Your task to perform on an android device: turn on priority inbox in the gmail app Image 0: 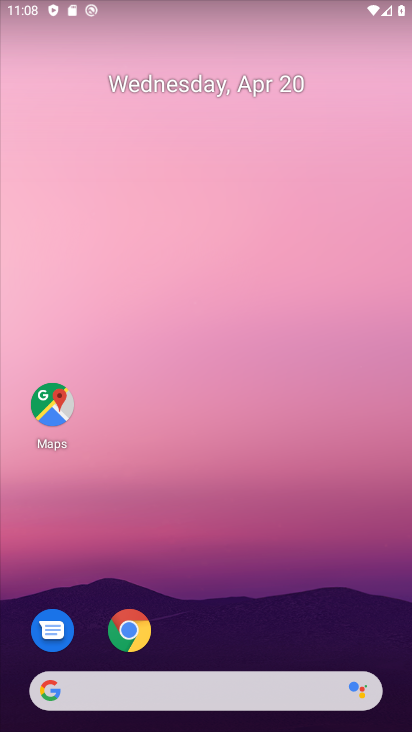
Step 0: drag from (201, 517) to (293, 106)
Your task to perform on an android device: turn on priority inbox in the gmail app Image 1: 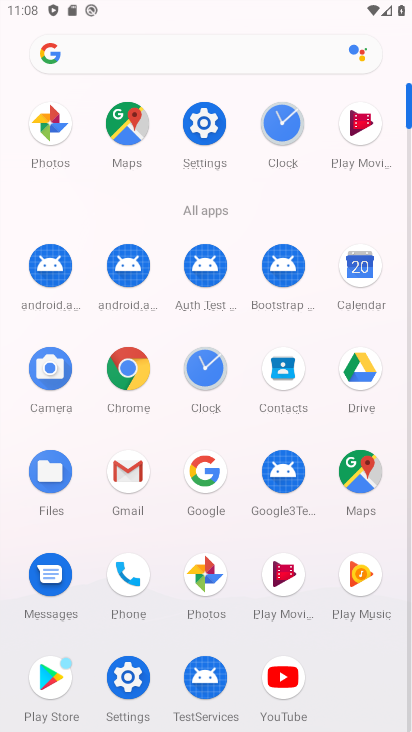
Step 1: click (117, 496)
Your task to perform on an android device: turn on priority inbox in the gmail app Image 2: 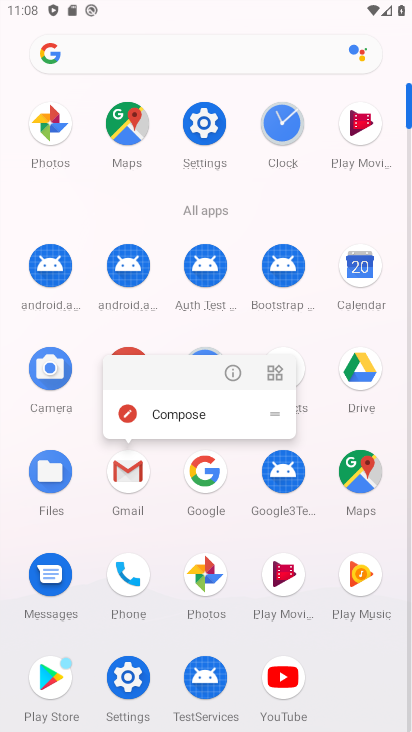
Step 2: click (135, 475)
Your task to perform on an android device: turn on priority inbox in the gmail app Image 3: 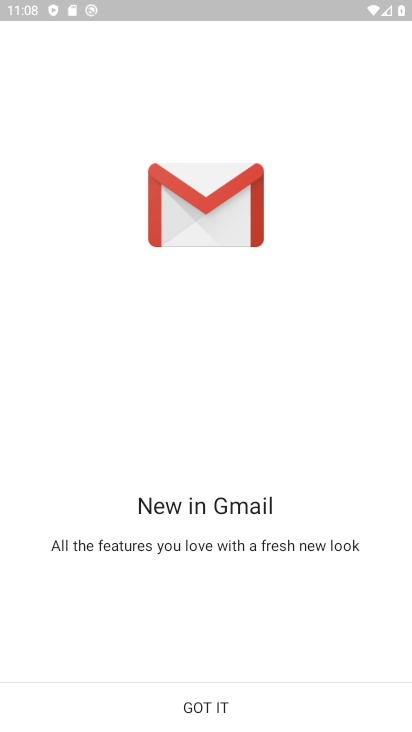
Step 3: click (224, 698)
Your task to perform on an android device: turn on priority inbox in the gmail app Image 4: 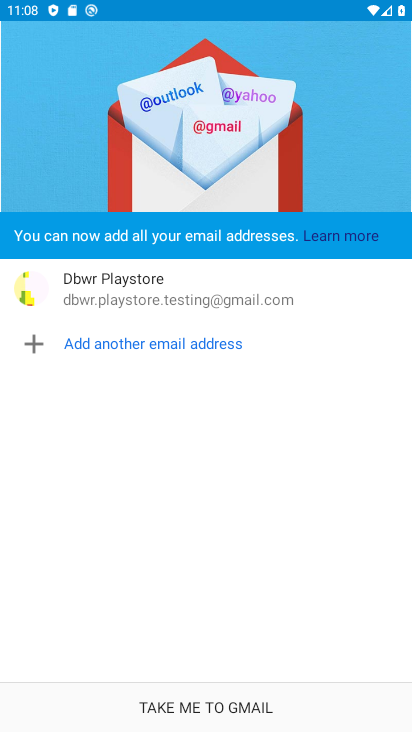
Step 4: click (206, 710)
Your task to perform on an android device: turn on priority inbox in the gmail app Image 5: 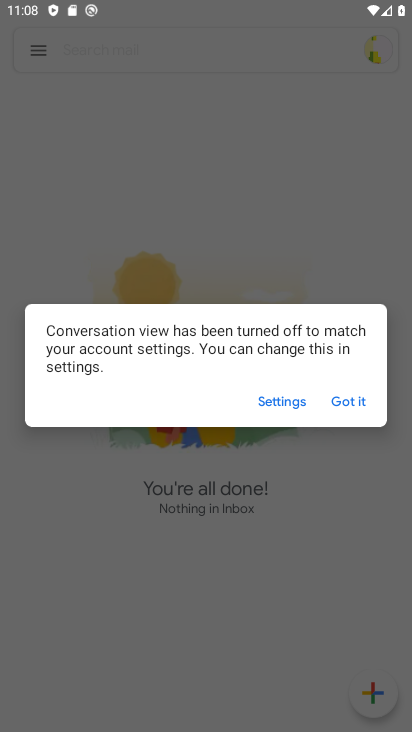
Step 5: click (345, 401)
Your task to perform on an android device: turn on priority inbox in the gmail app Image 6: 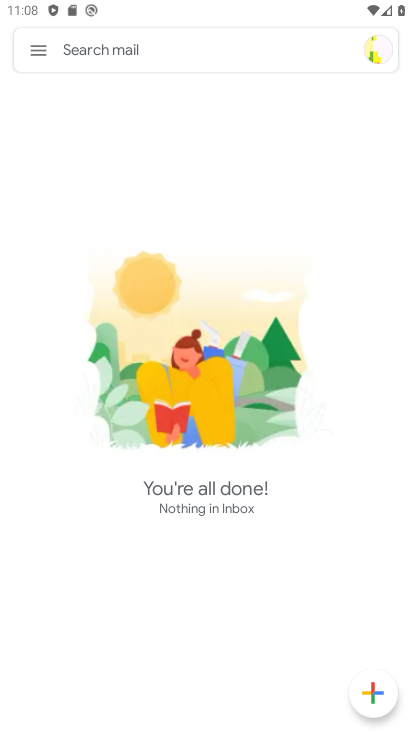
Step 6: click (44, 48)
Your task to perform on an android device: turn on priority inbox in the gmail app Image 7: 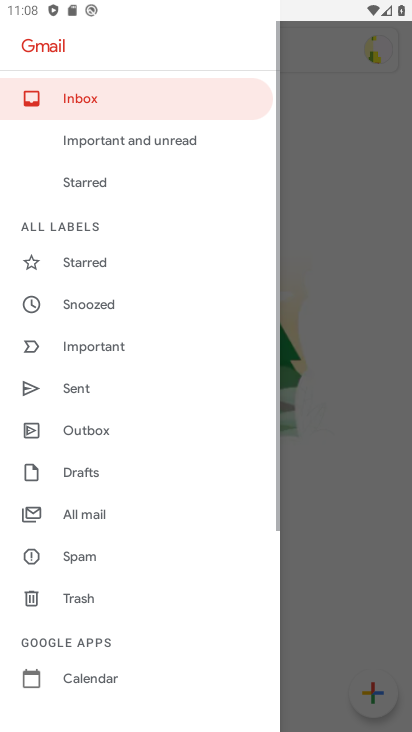
Step 7: drag from (96, 516) to (196, 151)
Your task to perform on an android device: turn on priority inbox in the gmail app Image 8: 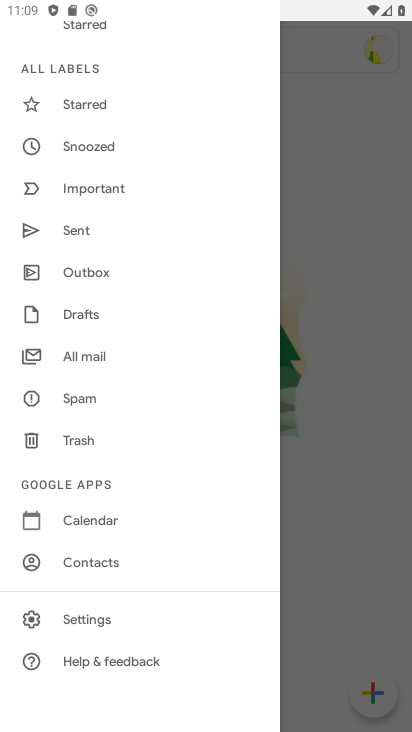
Step 8: click (101, 628)
Your task to perform on an android device: turn on priority inbox in the gmail app Image 9: 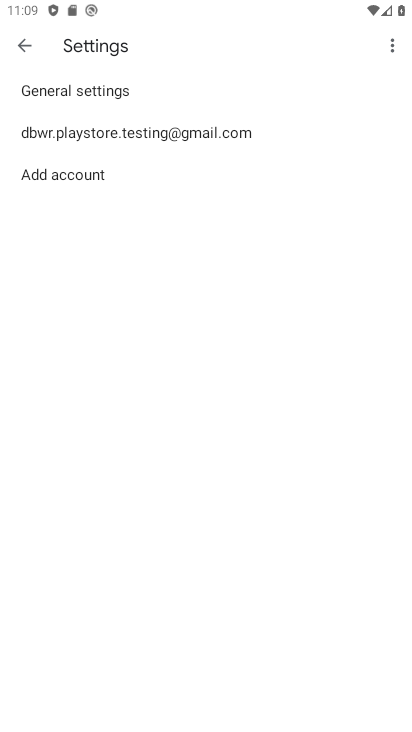
Step 9: click (208, 130)
Your task to perform on an android device: turn on priority inbox in the gmail app Image 10: 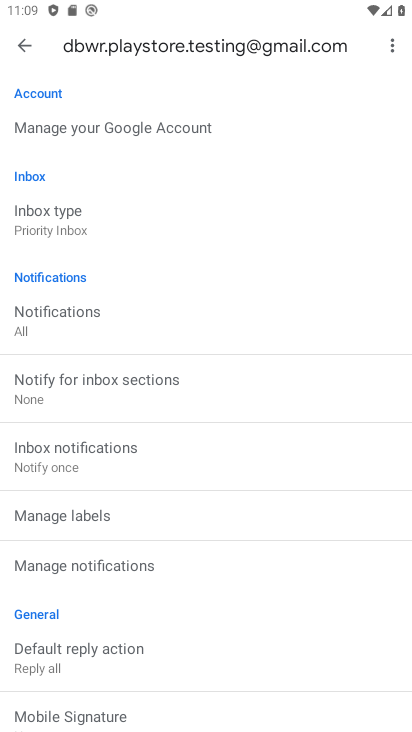
Step 10: task complete